Your task to perform on an android device: Go to calendar. Show me events next week Image 0: 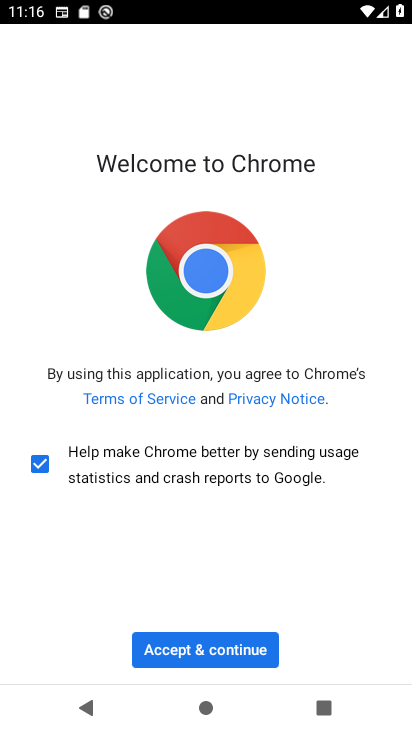
Step 0: press home button
Your task to perform on an android device: Go to calendar. Show me events next week Image 1: 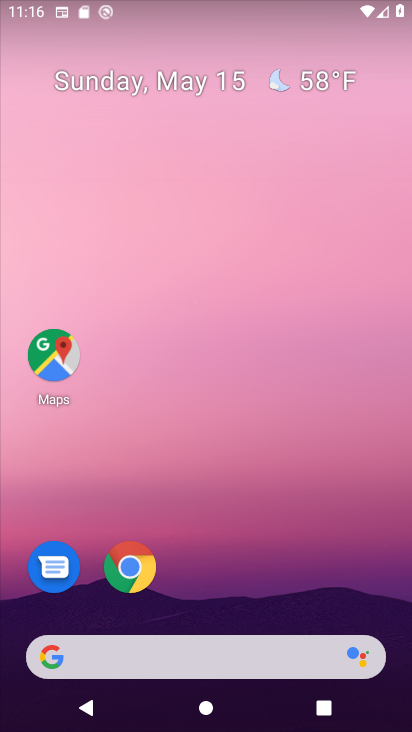
Step 1: click (153, 74)
Your task to perform on an android device: Go to calendar. Show me events next week Image 2: 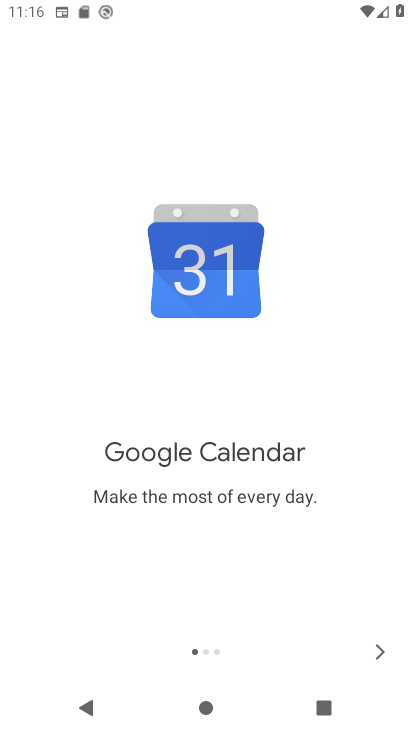
Step 2: click (392, 652)
Your task to perform on an android device: Go to calendar. Show me events next week Image 3: 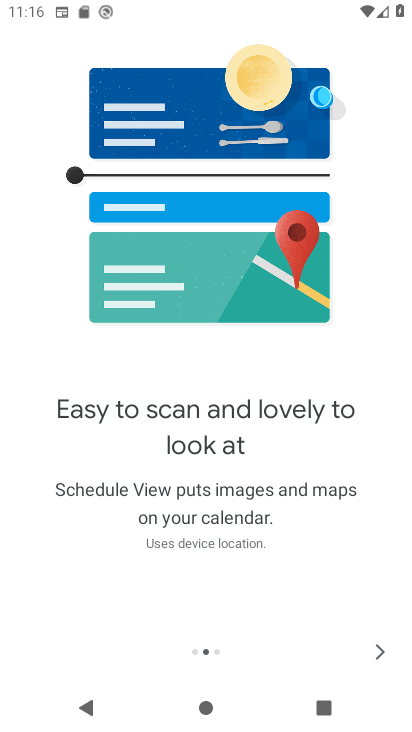
Step 3: click (392, 652)
Your task to perform on an android device: Go to calendar. Show me events next week Image 4: 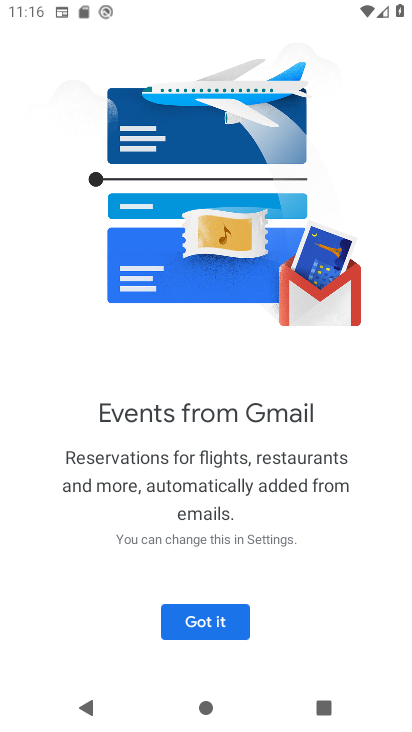
Step 4: click (218, 625)
Your task to perform on an android device: Go to calendar. Show me events next week Image 5: 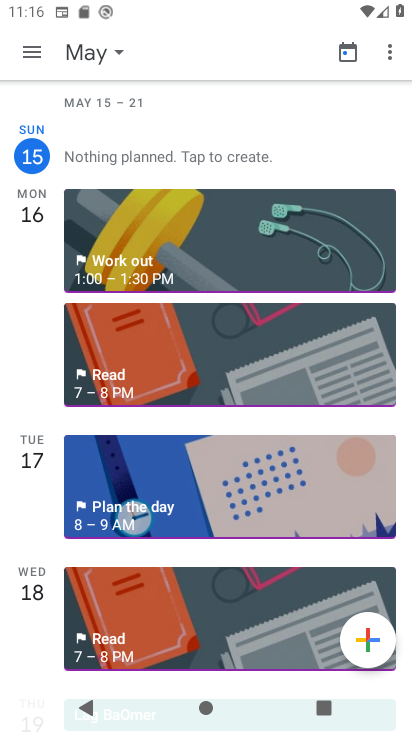
Step 5: click (95, 62)
Your task to perform on an android device: Go to calendar. Show me events next week Image 6: 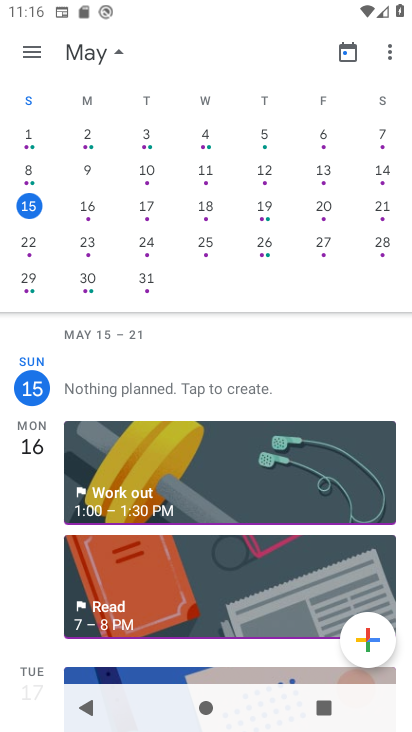
Step 6: click (193, 248)
Your task to perform on an android device: Go to calendar. Show me events next week Image 7: 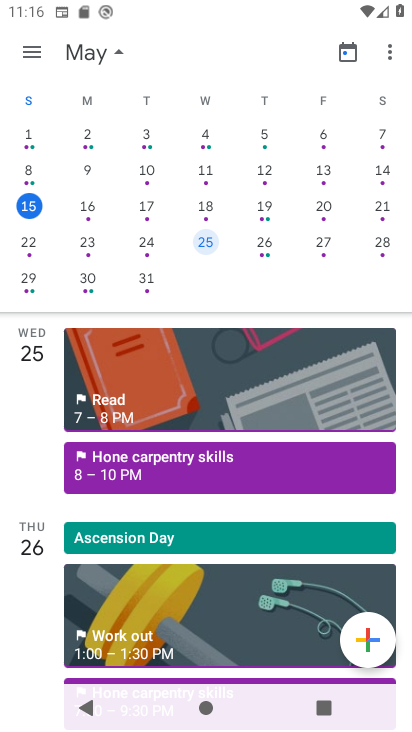
Step 7: task complete